Your task to perform on an android device: Set the phone to "Do not disturb". Image 0: 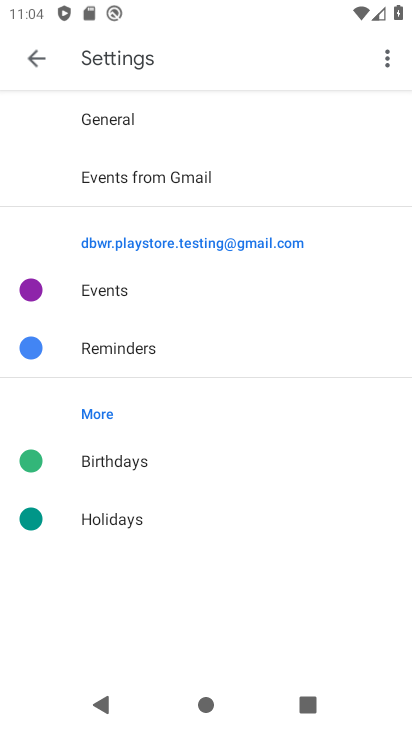
Step 0: drag from (0, 202) to (154, 219)
Your task to perform on an android device: Set the phone to "Do not disturb". Image 1: 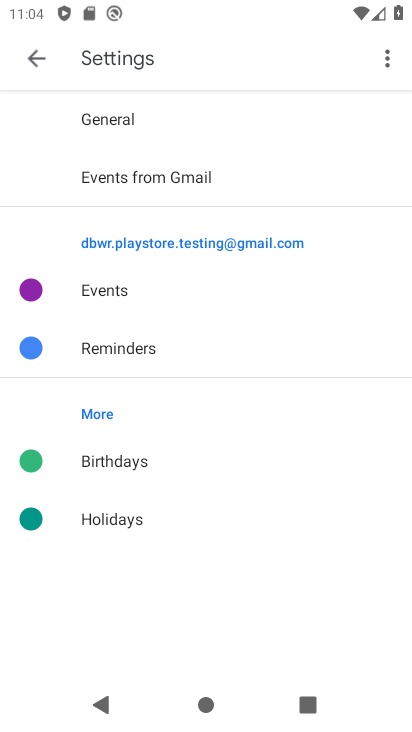
Step 1: press home button
Your task to perform on an android device: Set the phone to "Do not disturb". Image 2: 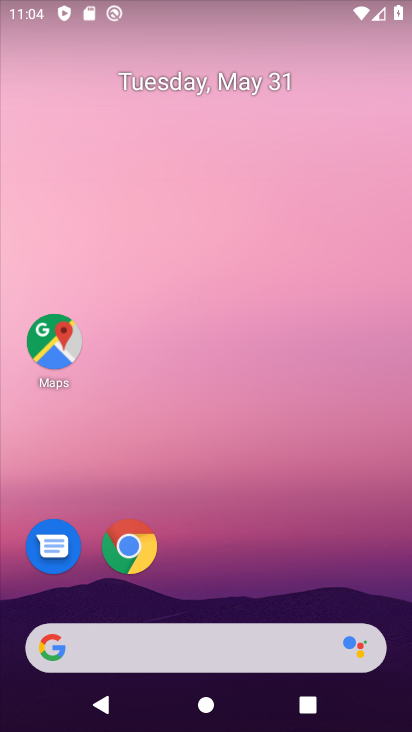
Step 2: drag from (245, 615) to (282, 16)
Your task to perform on an android device: Set the phone to "Do not disturb". Image 3: 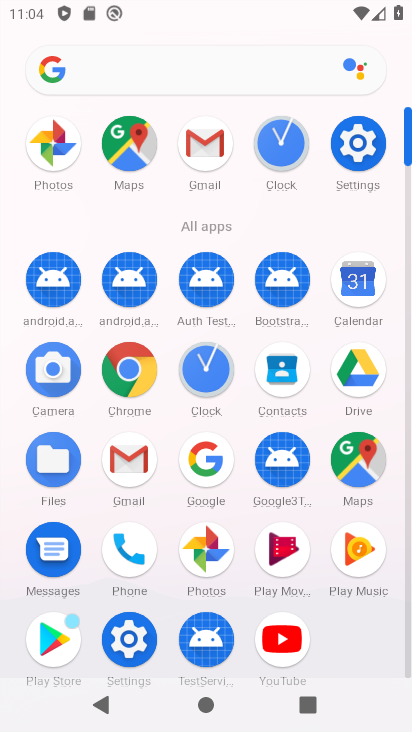
Step 3: click (340, 142)
Your task to perform on an android device: Set the phone to "Do not disturb". Image 4: 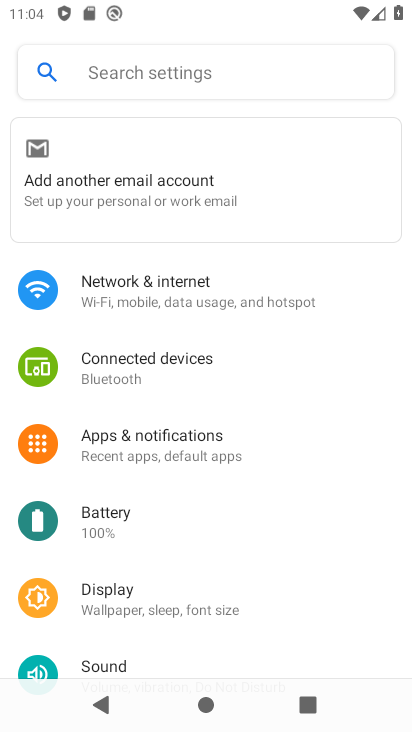
Step 4: click (150, 667)
Your task to perform on an android device: Set the phone to "Do not disturb". Image 5: 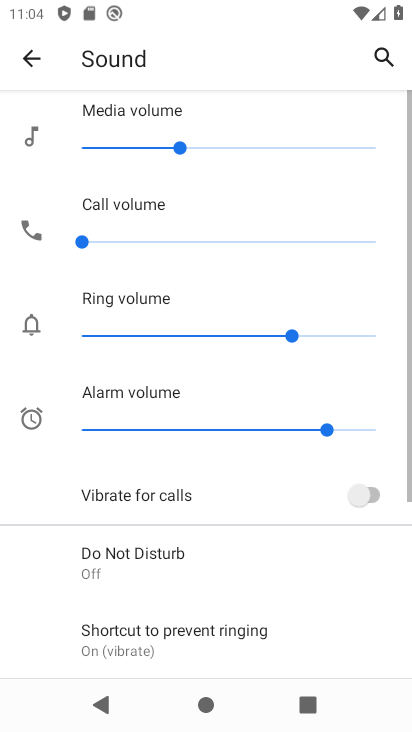
Step 5: drag from (239, 633) to (296, 389)
Your task to perform on an android device: Set the phone to "Do not disturb". Image 6: 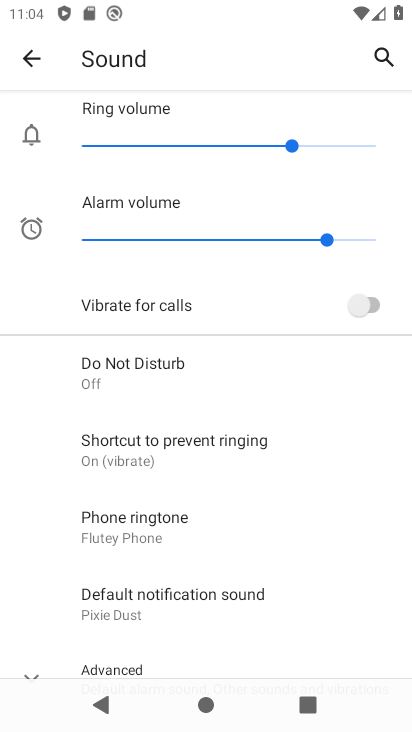
Step 6: click (174, 394)
Your task to perform on an android device: Set the phone to "Do not disturb". Image 7: 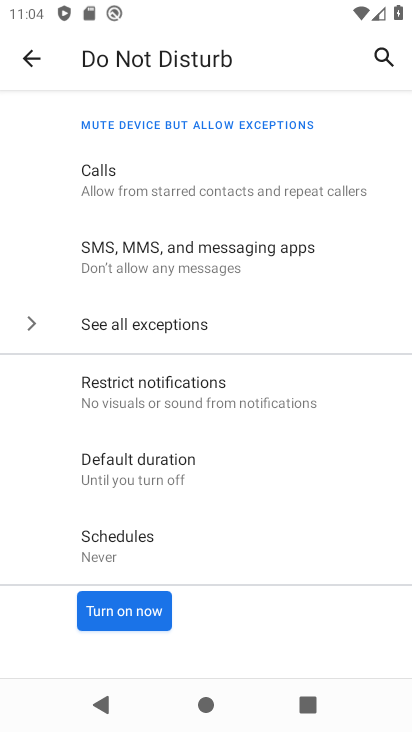
Step 7: click (147, 598)
Your task to perform on an android device: Set the phone to "Do not disturb". Image 8: 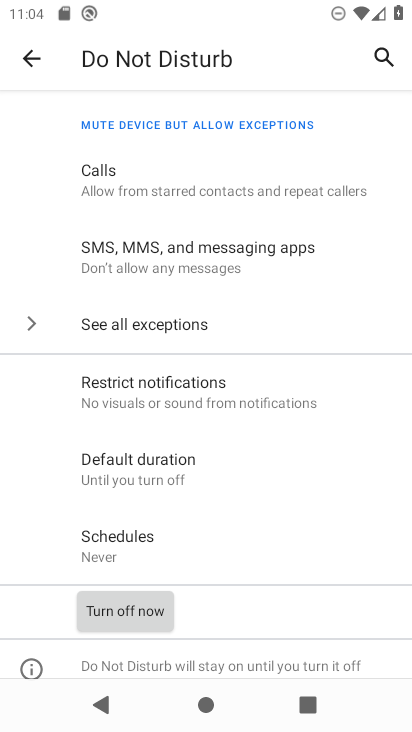
Step 8: task complete